Your task to perform on an android device: Go to Google Image 0: 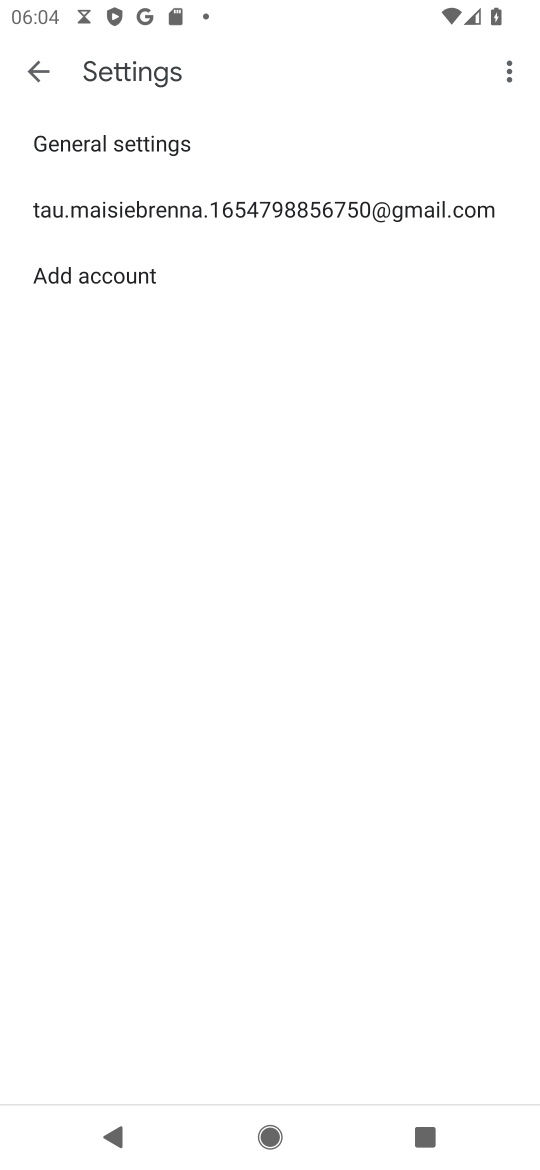
Step 0: press home button
Your task to perform on an android device: Go to Google Image 1: 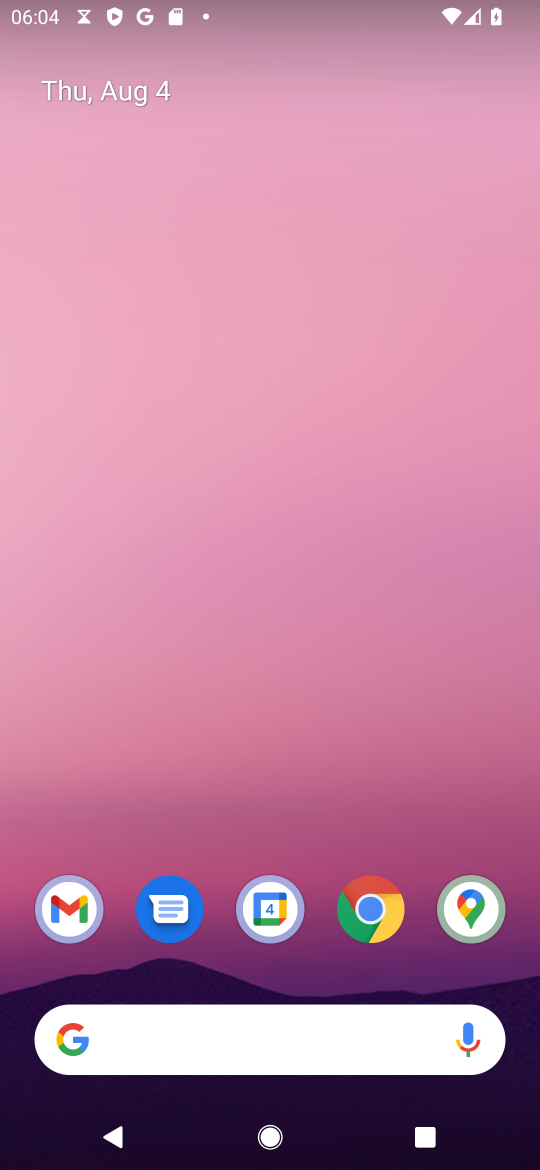
Step 1: drag from (296, 972) to (398, 240)
Your task to perform on an android device: Go to Google Image 2: 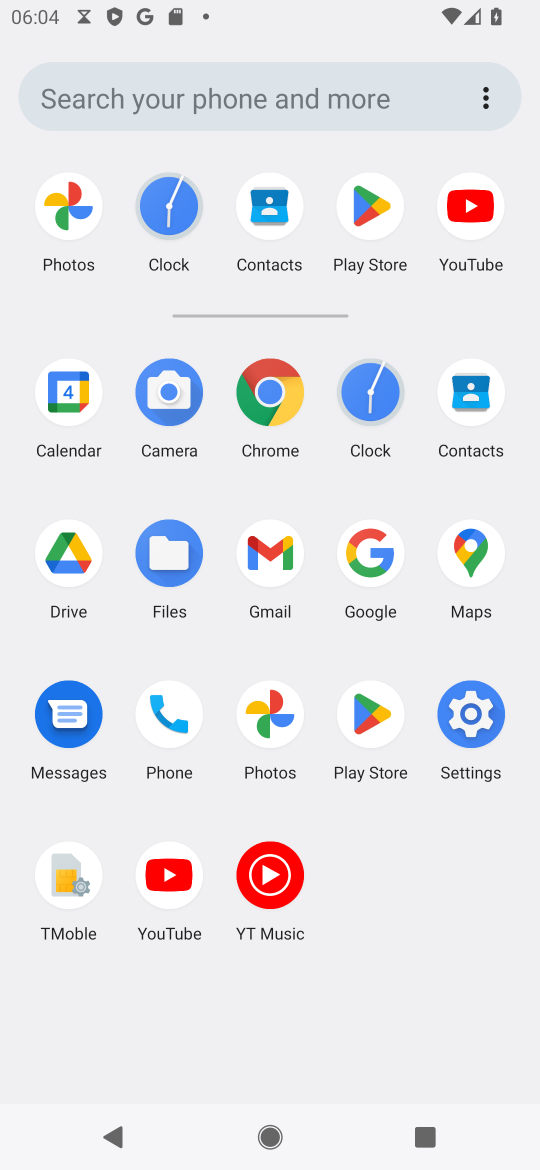
Step 2: click (360, 547)
Your task to perform on an android device: Go to Google Image 3: 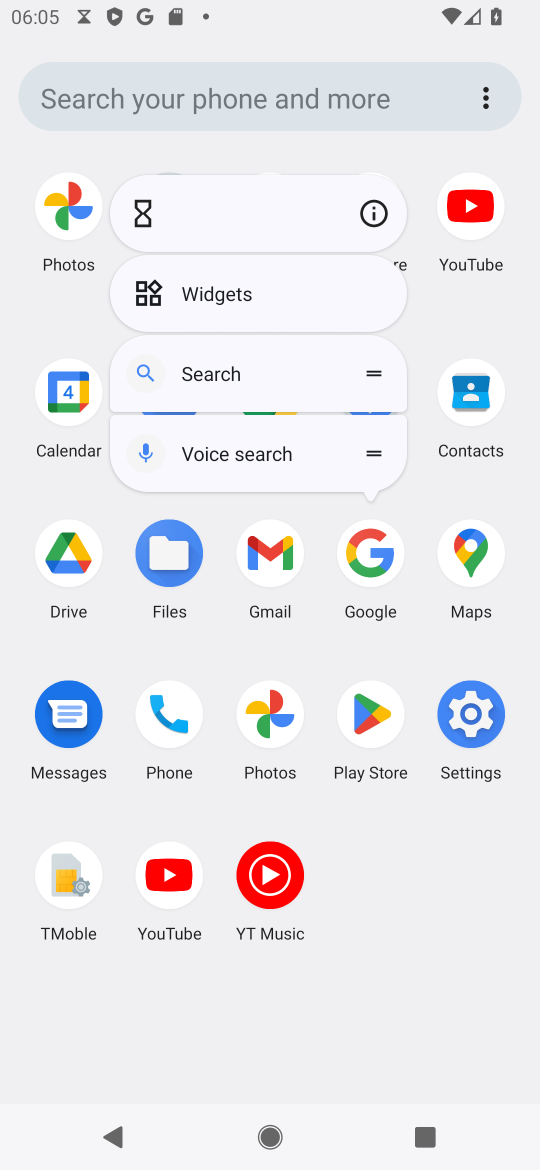
Step 3: click (372, 567)
Your task to perform on an android device: Go to Google Image 4: 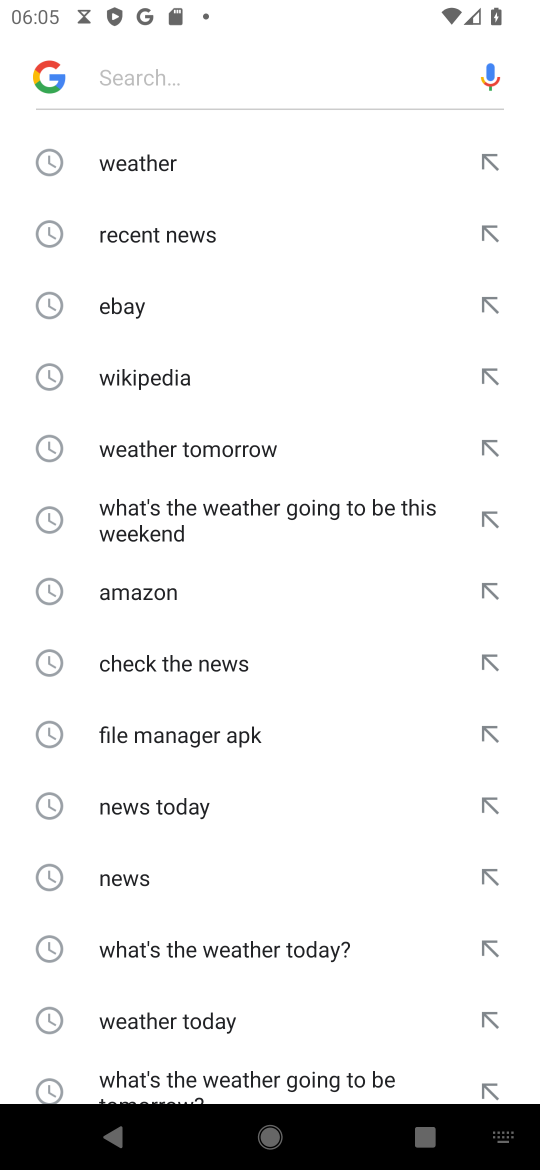
Step 4: task complete